Your task to perform on an android device: Show me recent news Image 0: 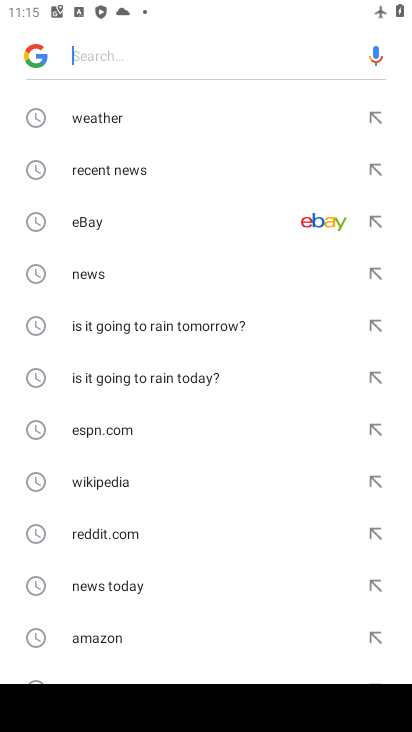
Step 0: press home button
Your task to perform on an android device: Show me recent news Image 1: 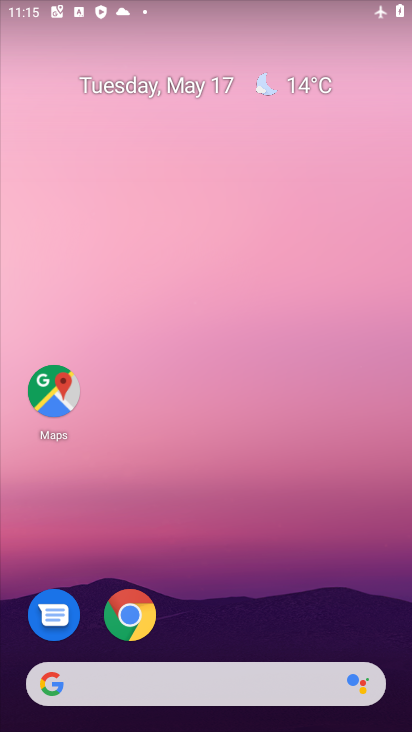
Step 1: task complete